Your task to perform on an android device: Turn off the flashlight Image 0: 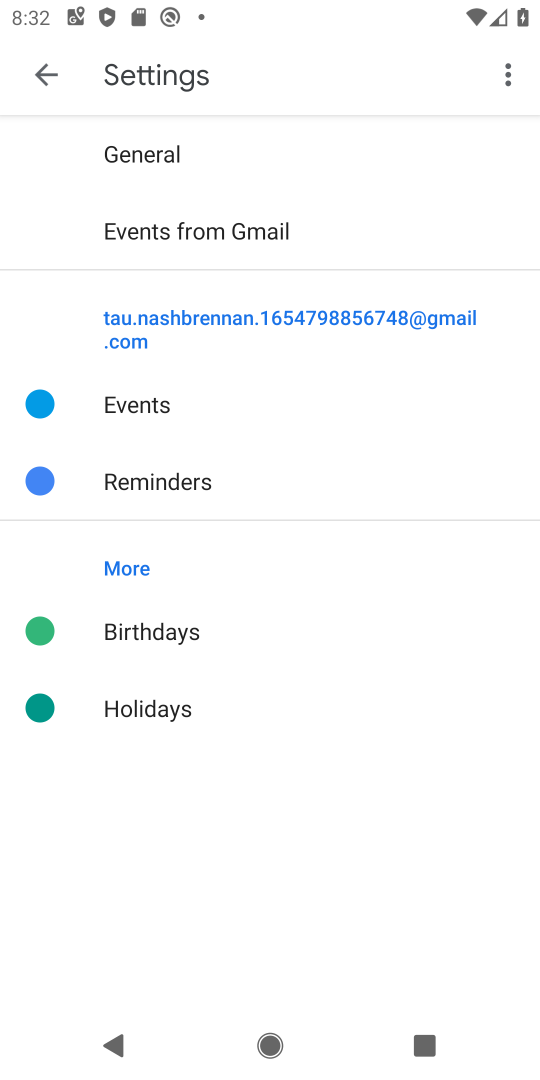
Step 0: press home button
Your task to perform on an android device: Turn off the flashlight Image 1: 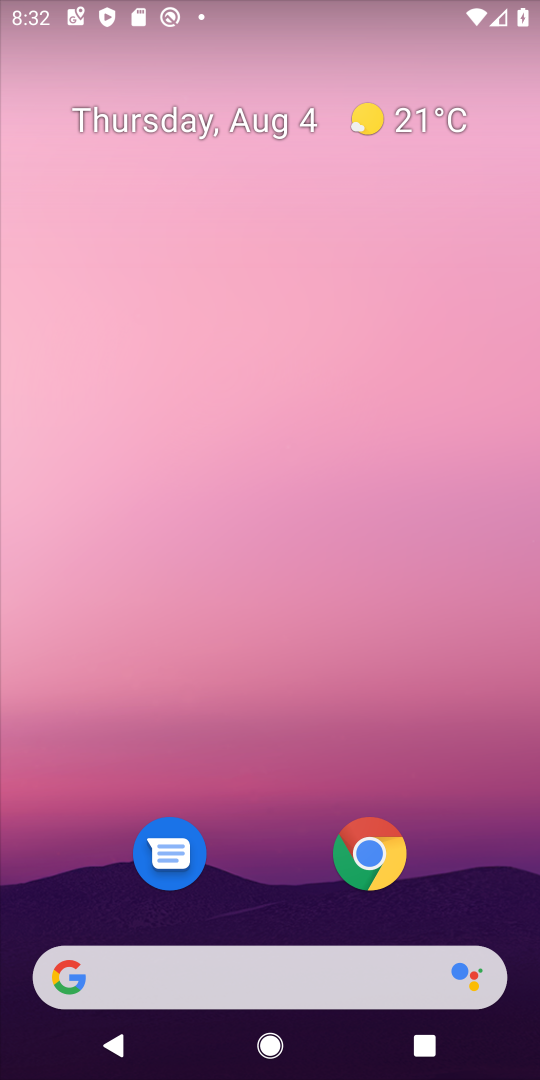
Step 1: drag from (262, 8) to (247, 704)
Your task to perform on an android device: Turn off the flashlight Image 2: 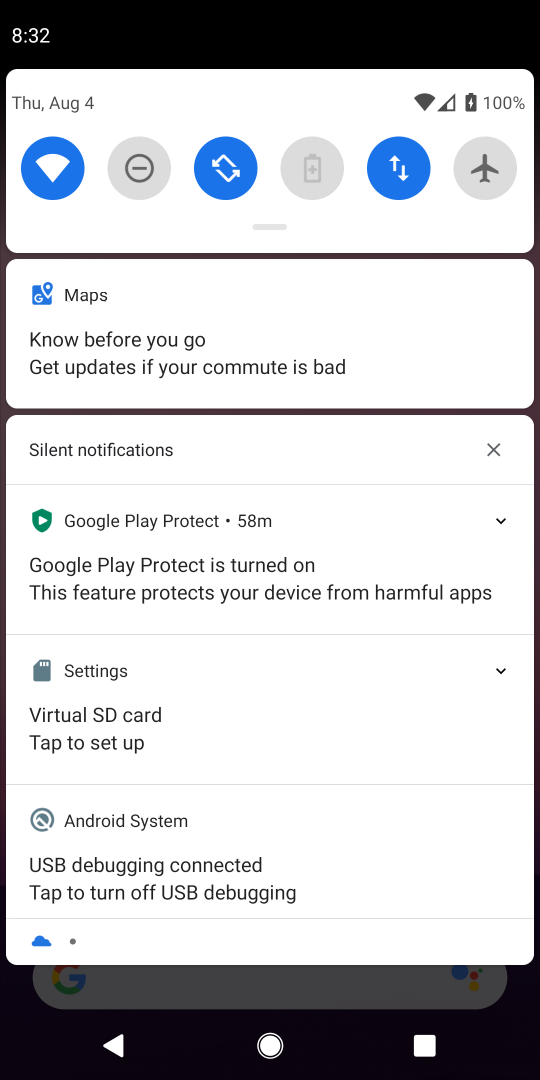
Step 2: drag from (261, 201) to (266, 713)
Your task to perform on an android device: Turn off the flashlight Image 3: 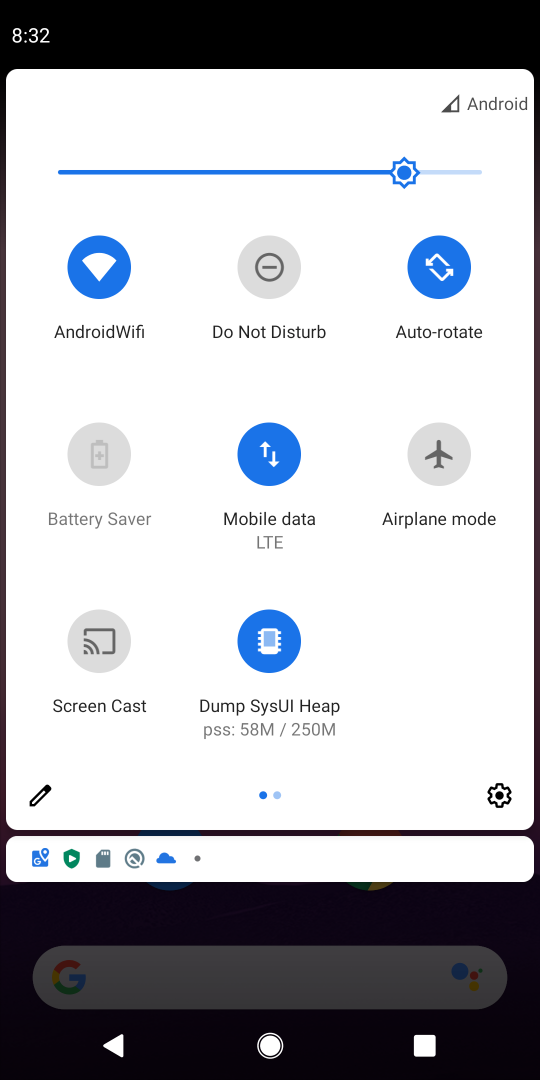
Step 3: drag from (444, 541) to (0, 541)
Your task to perform on an android device: Turn off the flashlight Image 4: 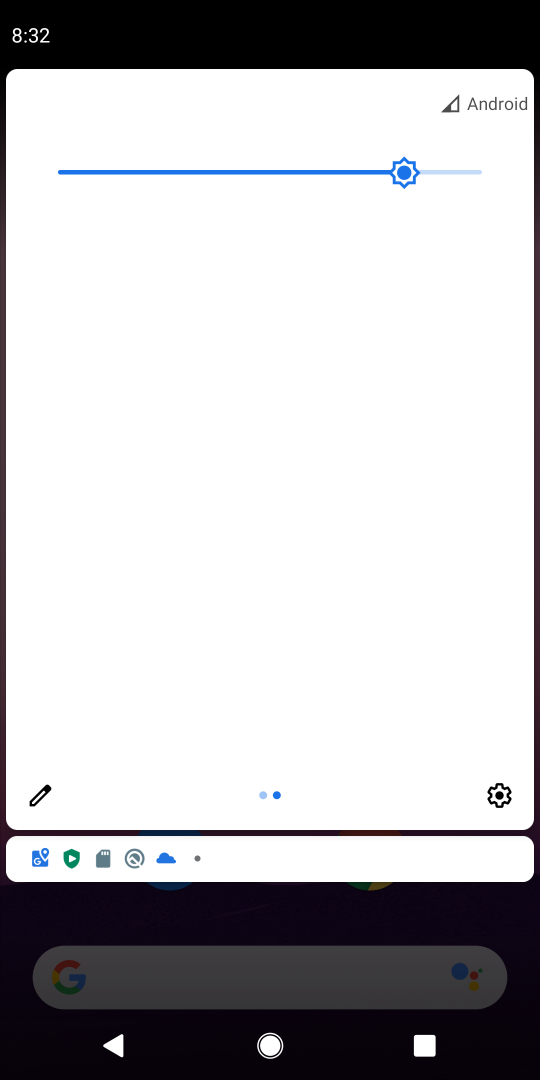
Step 4: click (42, 789)
Your task to perform on an android device: Turn off the flashlight Image 5: 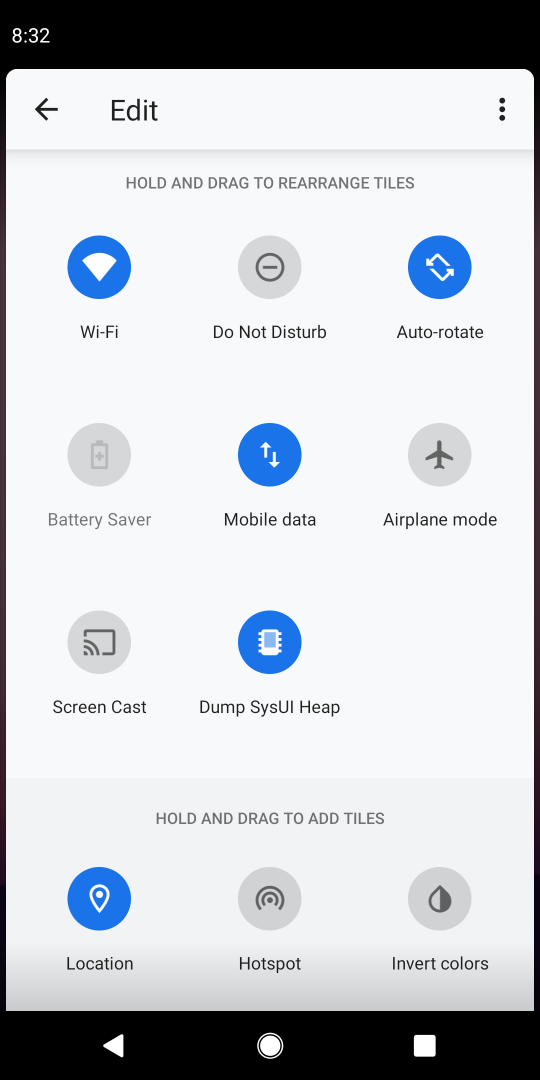
Step 5: task complete